Your task to perform on an android device: Go to privacy settings Image 0: 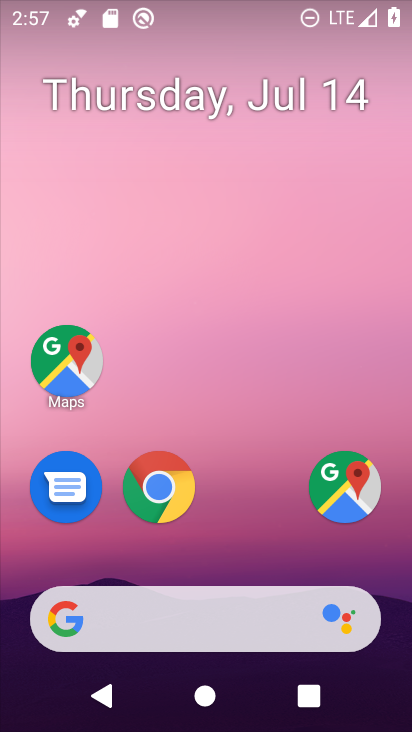
Step 0: drag from (249, 539) to (285, 186)
Your task to perform on an android device: Go to privacy settings Image 1: 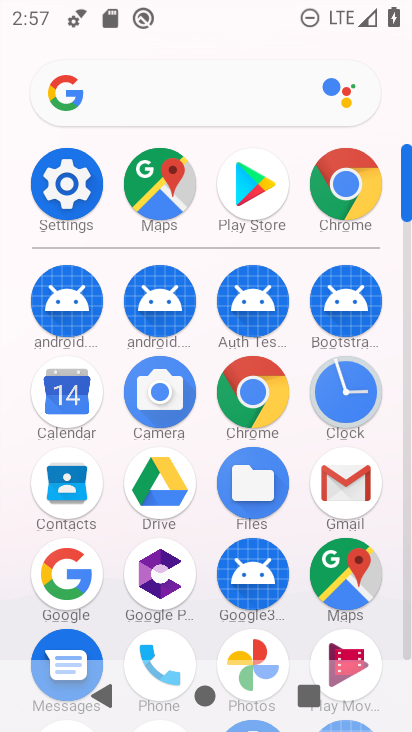
Step 1: click (72, 195)
Your task to perform on an android device: Go to privacy settings Image 2: 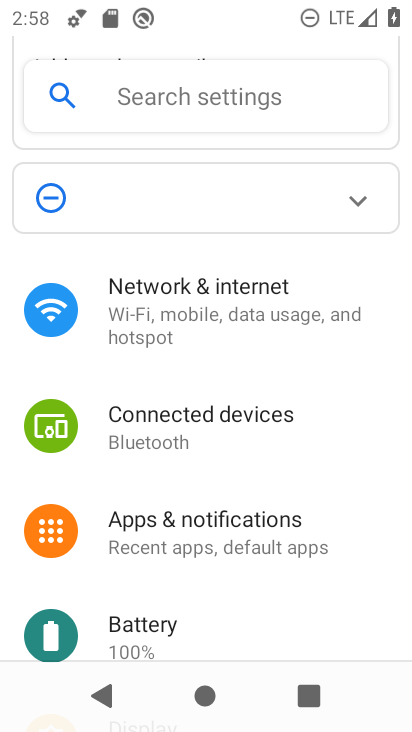
Step 2: drag from (341, 539) to (349, 421)
Your task to perform on an android device: Go to privacy settings Image 3: 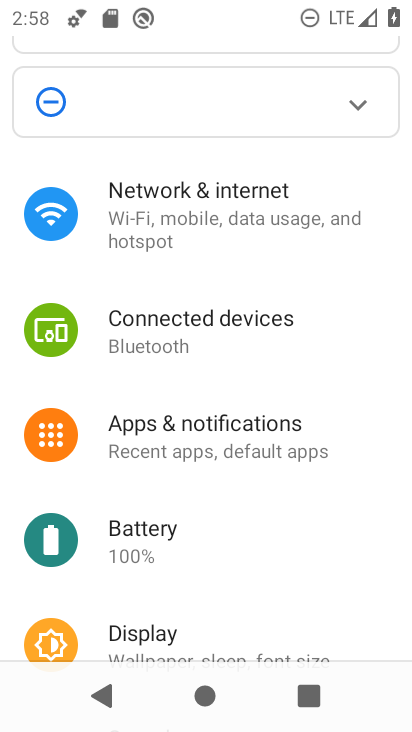
Step 3: drag from (356, 534) to (351, 442)
Your task to perform on an android device: Go to privacy settings Image 4: 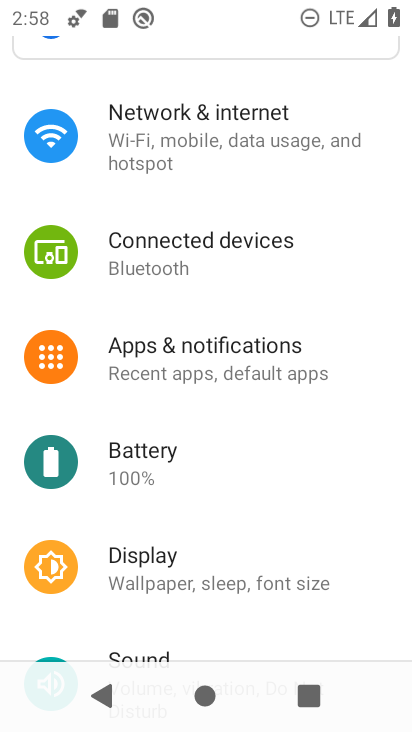
Step 4: drag from (360, 587) to (356, 442)
Your task to perform on an android device: Go to privacy settings Image 5: 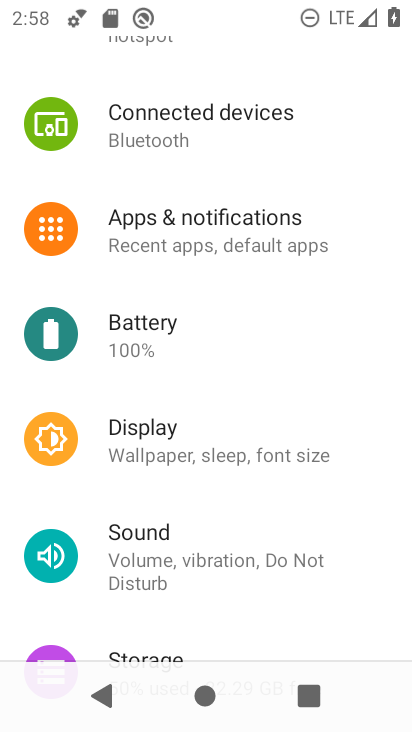
Step 5: drag from (360, 592) to (357, 448)
Your task to perform on an android device: Go to privacy settings Image 6: 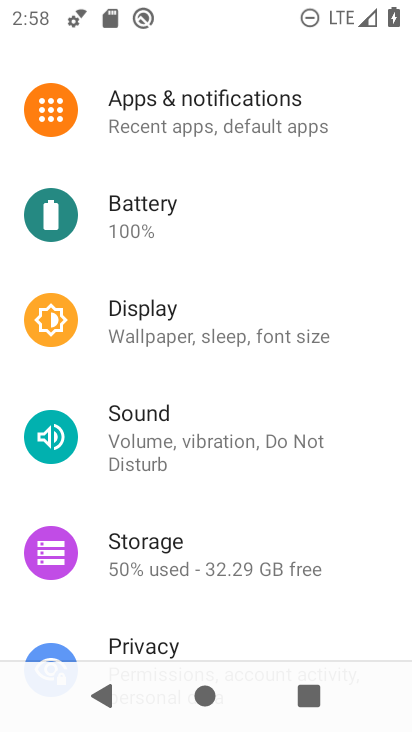
Step 6: drag from (356, 584) to (353, 381)
Your task to perform on an android device: Go to privacy settings Image 7: 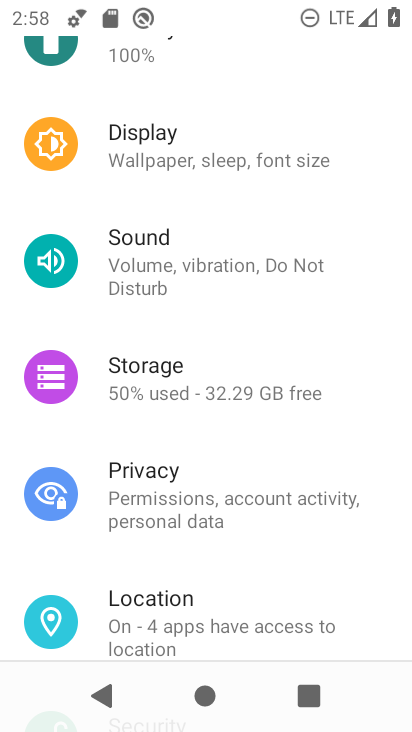
Step 7: drag from (354, 585) to (352, 443)
Your task to perform on an android device: Go to privacy settings Image 8: 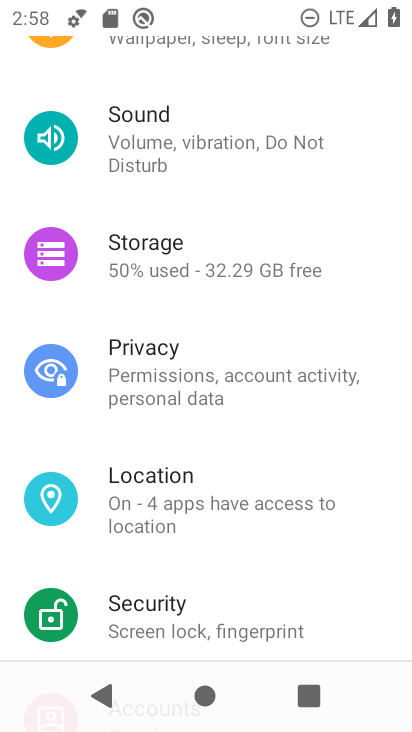
Step 8: click (296, 367)
Your task to perform on an android device: Go to privacy settings Image 9: 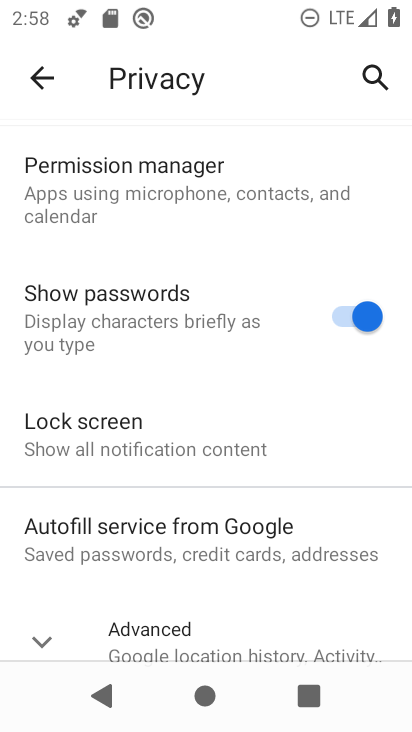
Step 9: click (193, 642)
Your task to perform on an android device: Go to privacy settings Image 10: 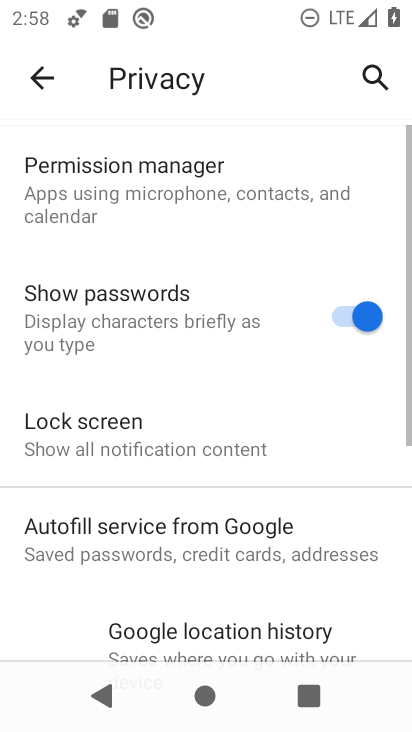
Step 10: task complete